Your task to perform on an android device: uninstall "Yahoo Mail" Image 0: 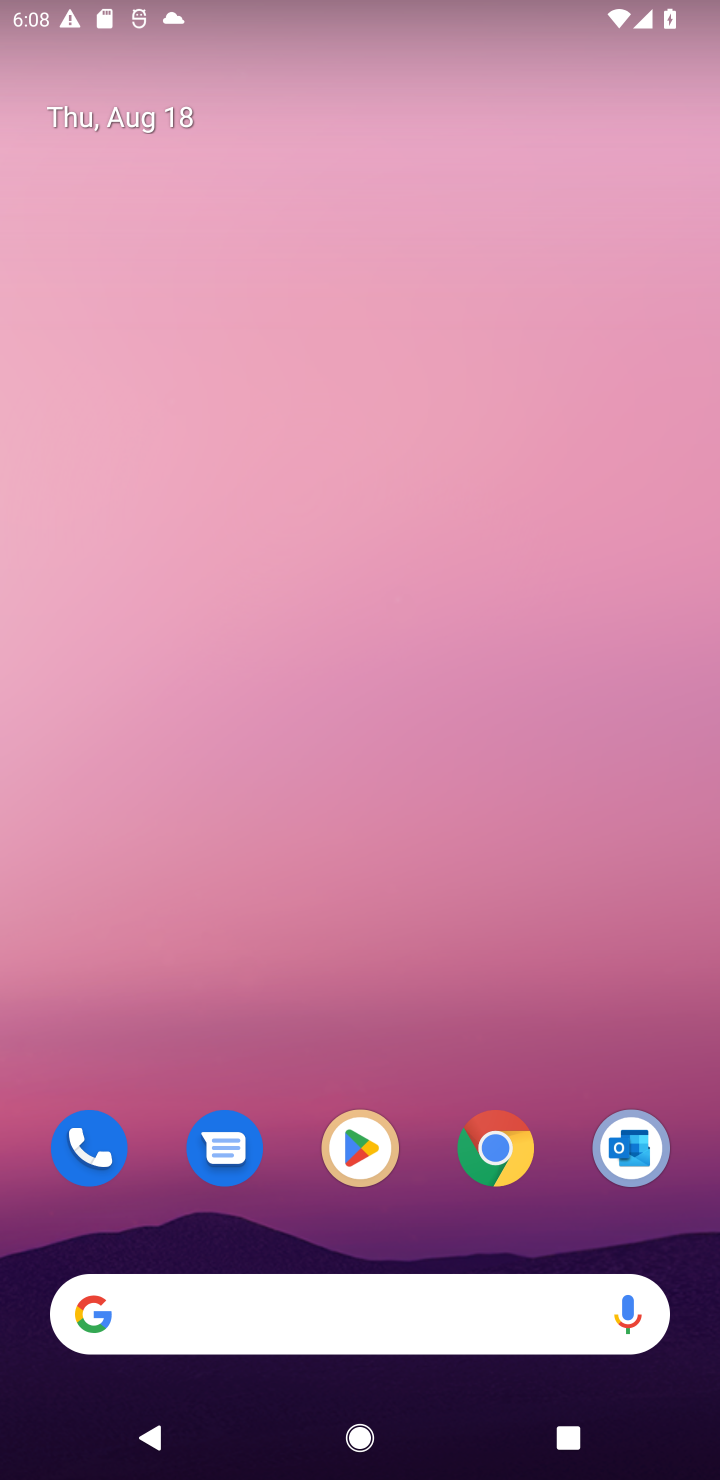
Step 0: drag from (344, 898) to (233, 7)
Your task to perform on an android device: uninstall "Yahoo Mail" Image 1: 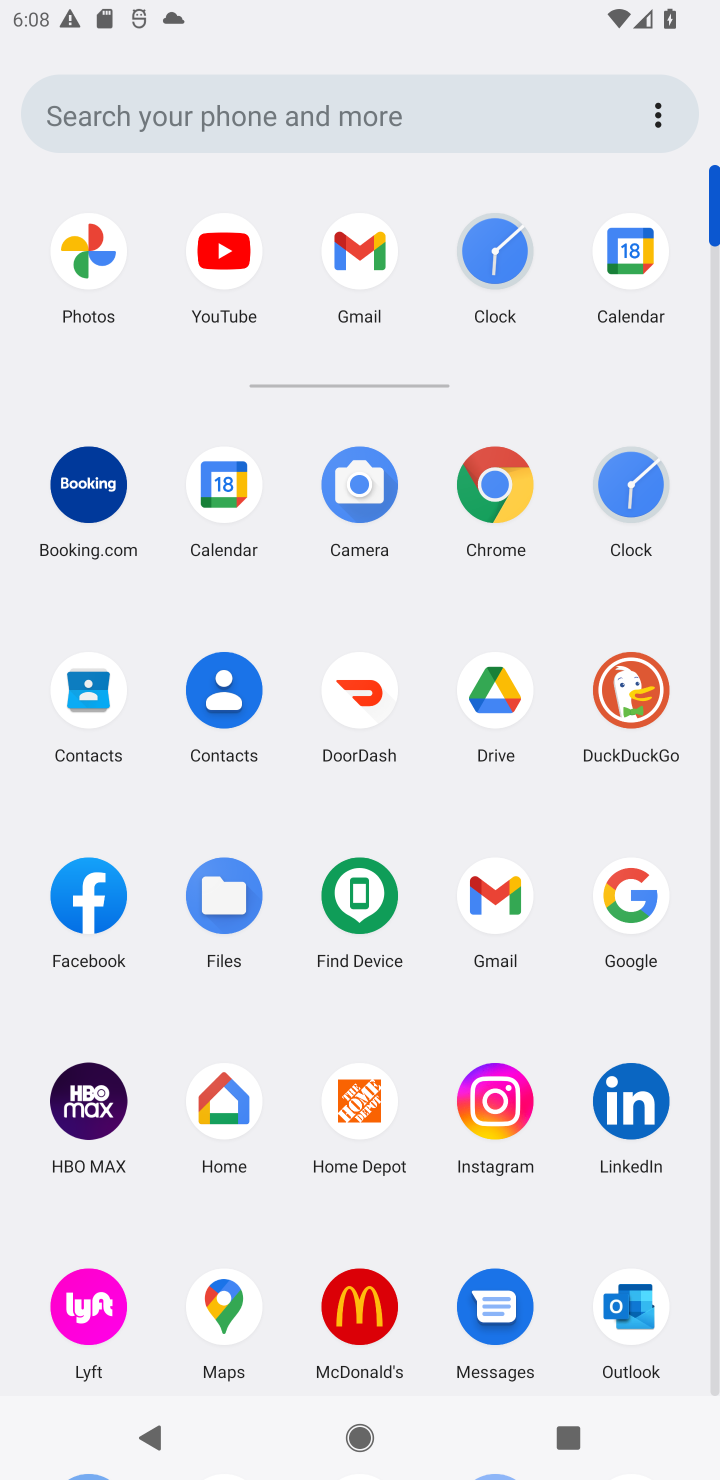
Step 1: click (494, 468)
Your task to perform on an android device: uninstall "Yahoo Mail" Image 2: 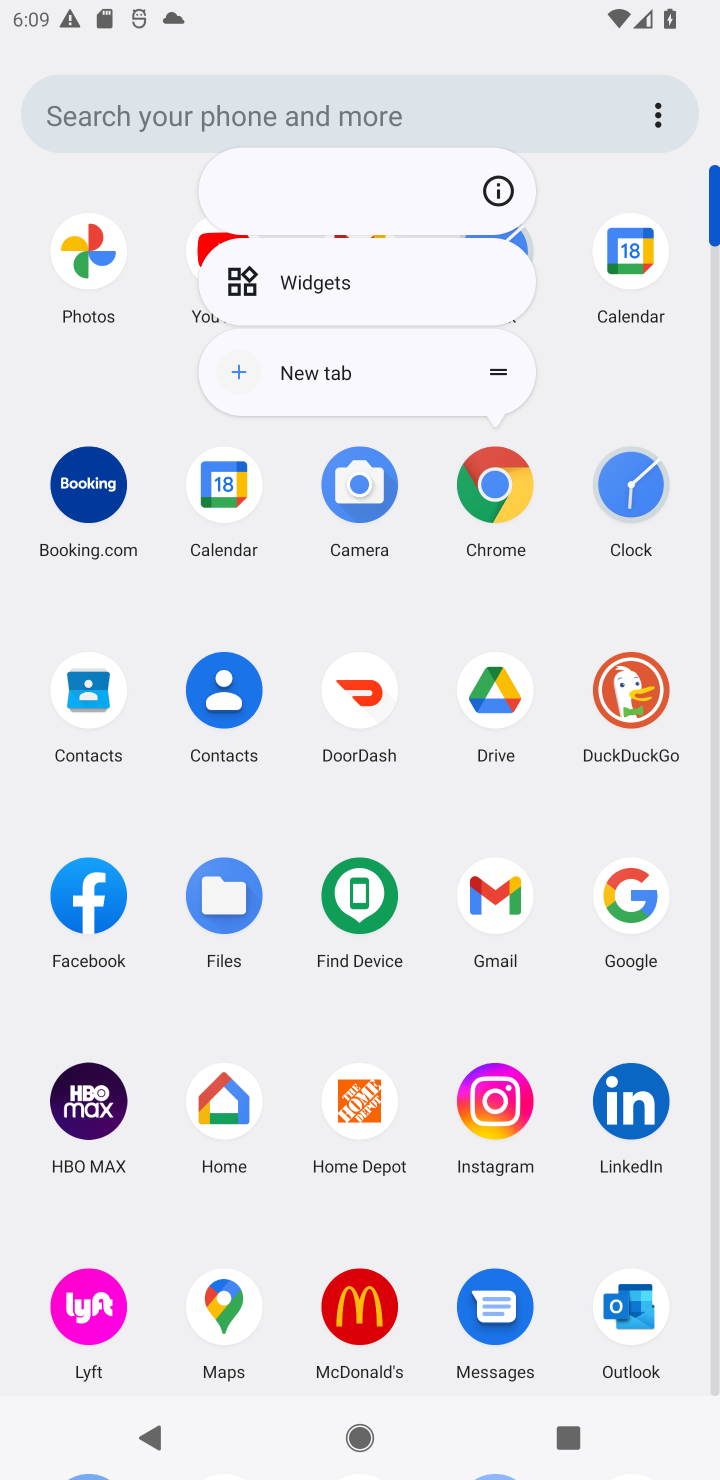
Step 2: click (494, 468)
Your task to perform on an android device: uninstall "Yahoo Mail" Image 3: 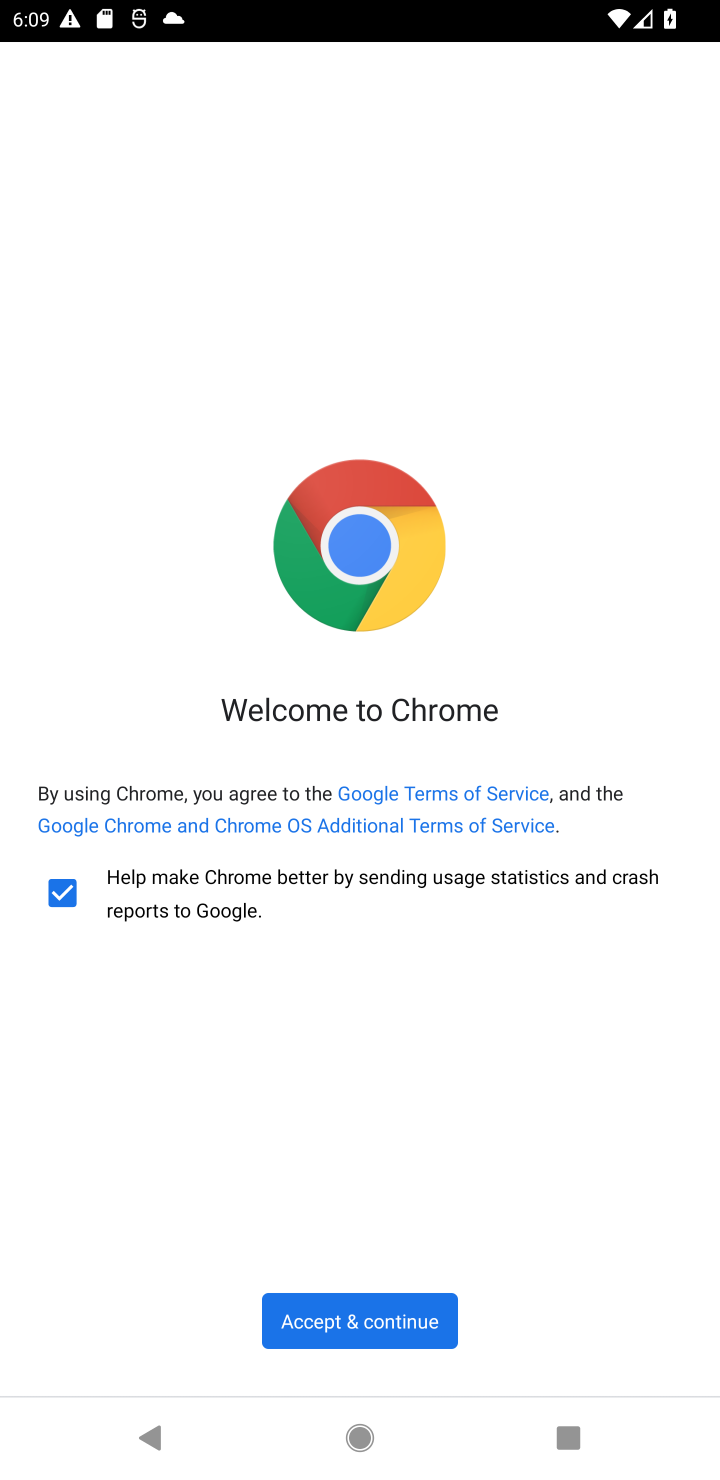
Step 3: click (400, 1318)
Your task to perform on an android device: uninstall "Yahoo Mail" Image 4: 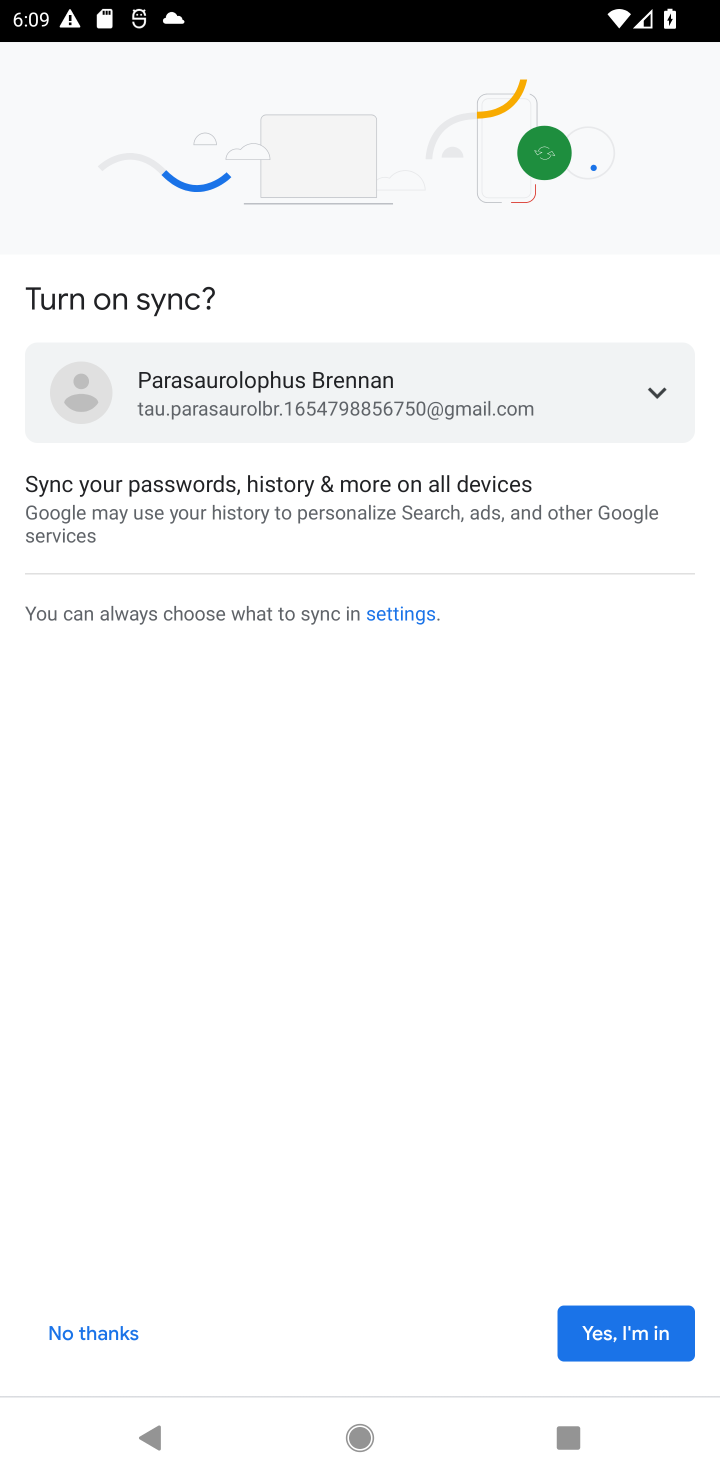
Step 4: click (121, 1330)
Your task to perform on an android device: uninstall "Yahoo Mail" Image 5: 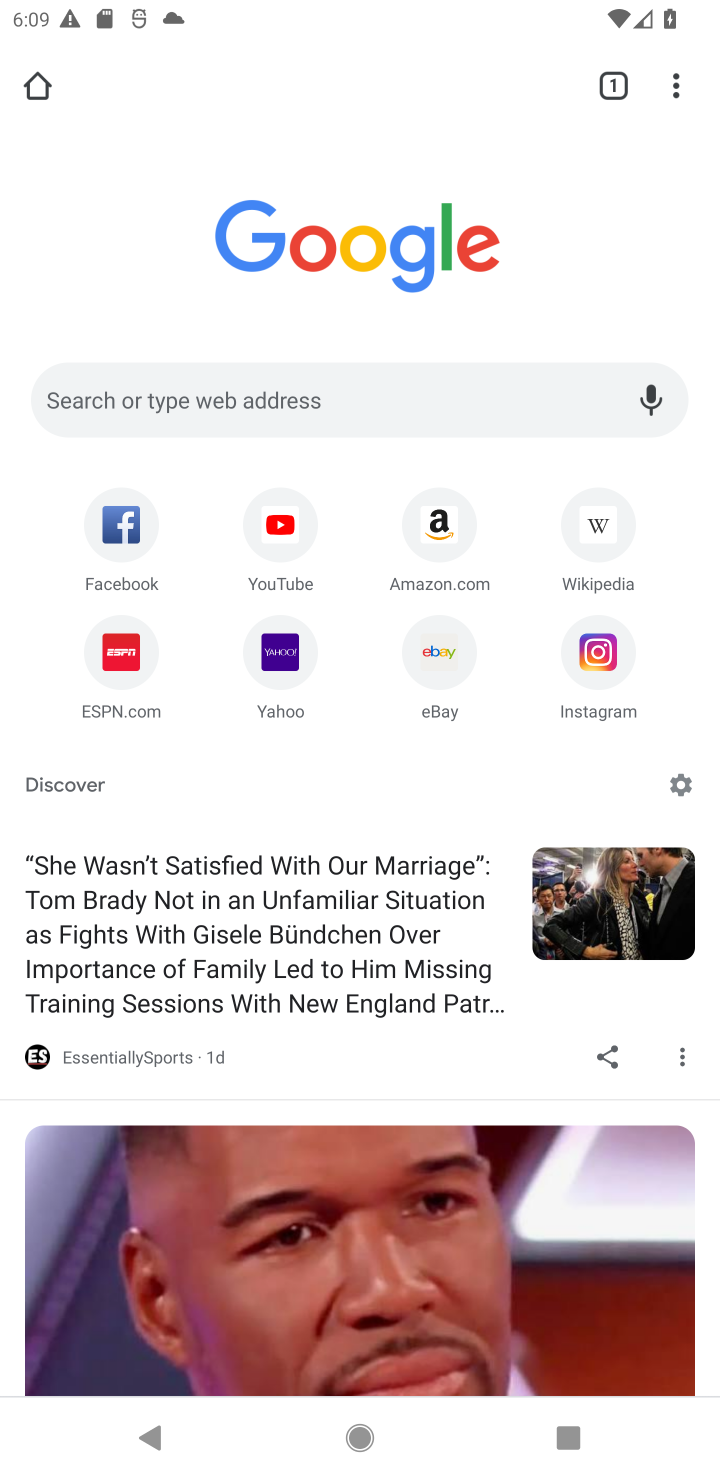
Step 5: press back button
Your task to perform on an android device: uninstall "Yahoo Mail" Image 6: 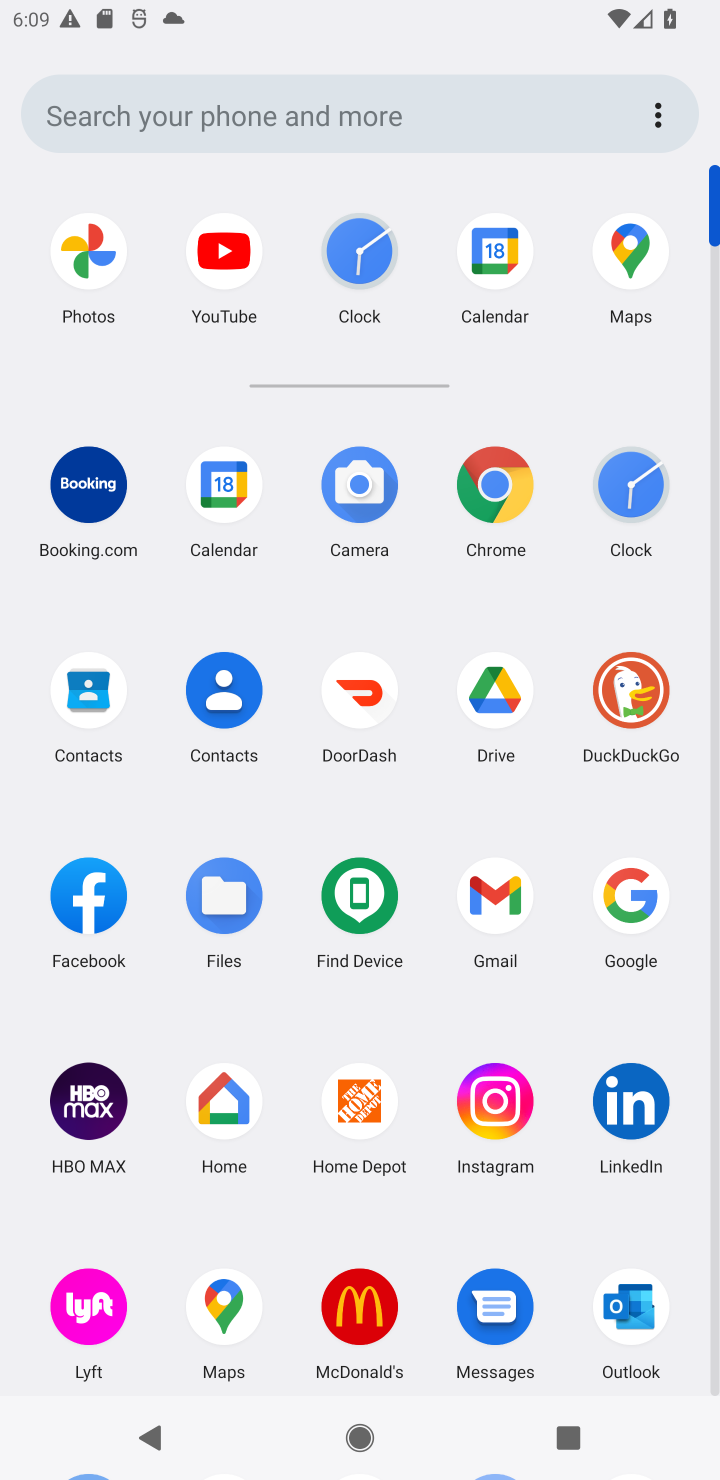
Step 6: drag from (356, 1206) to (262, 590)
Your task to perform on an android device: uninstall "Yahoo Mail" Image 7: 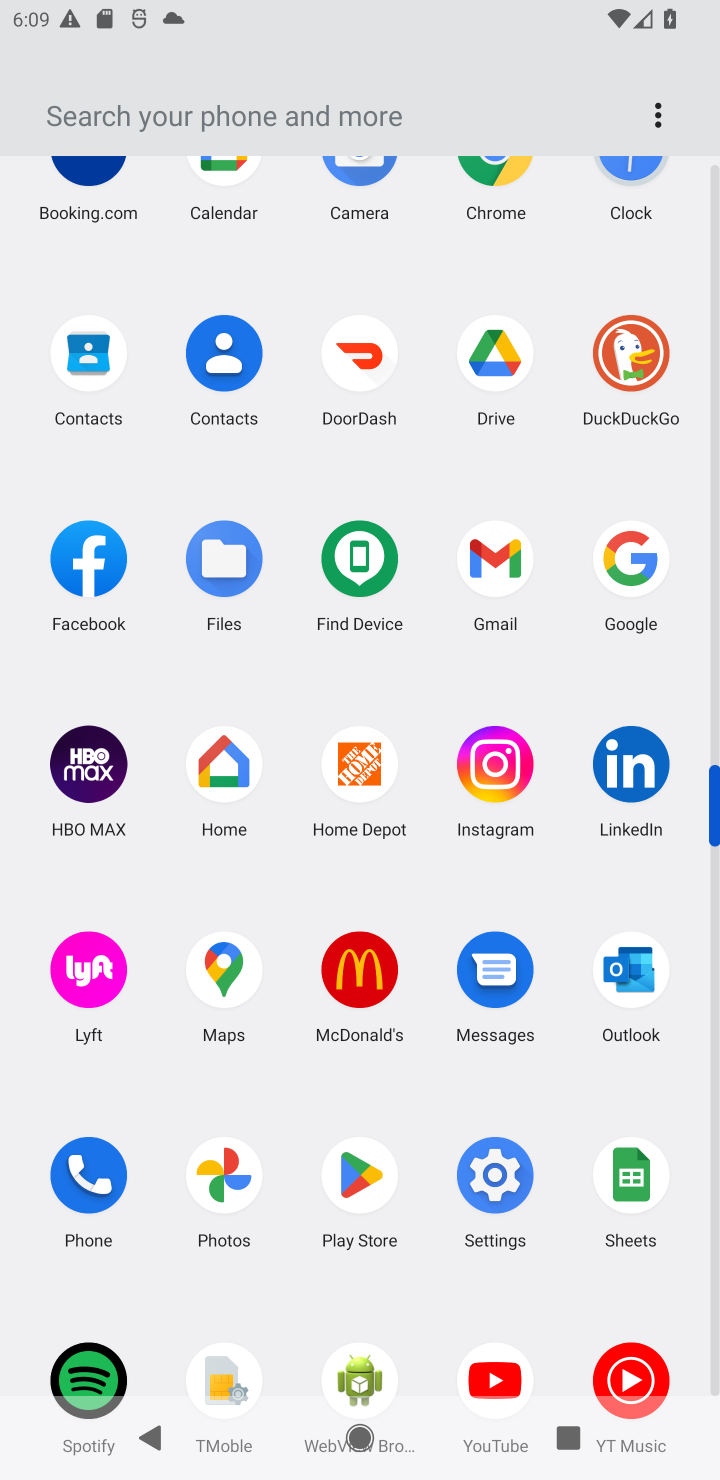
Step 7: click (326, 1169)
Your task to perform on an android device: uninstall "Yahoo Mail" Image 8: 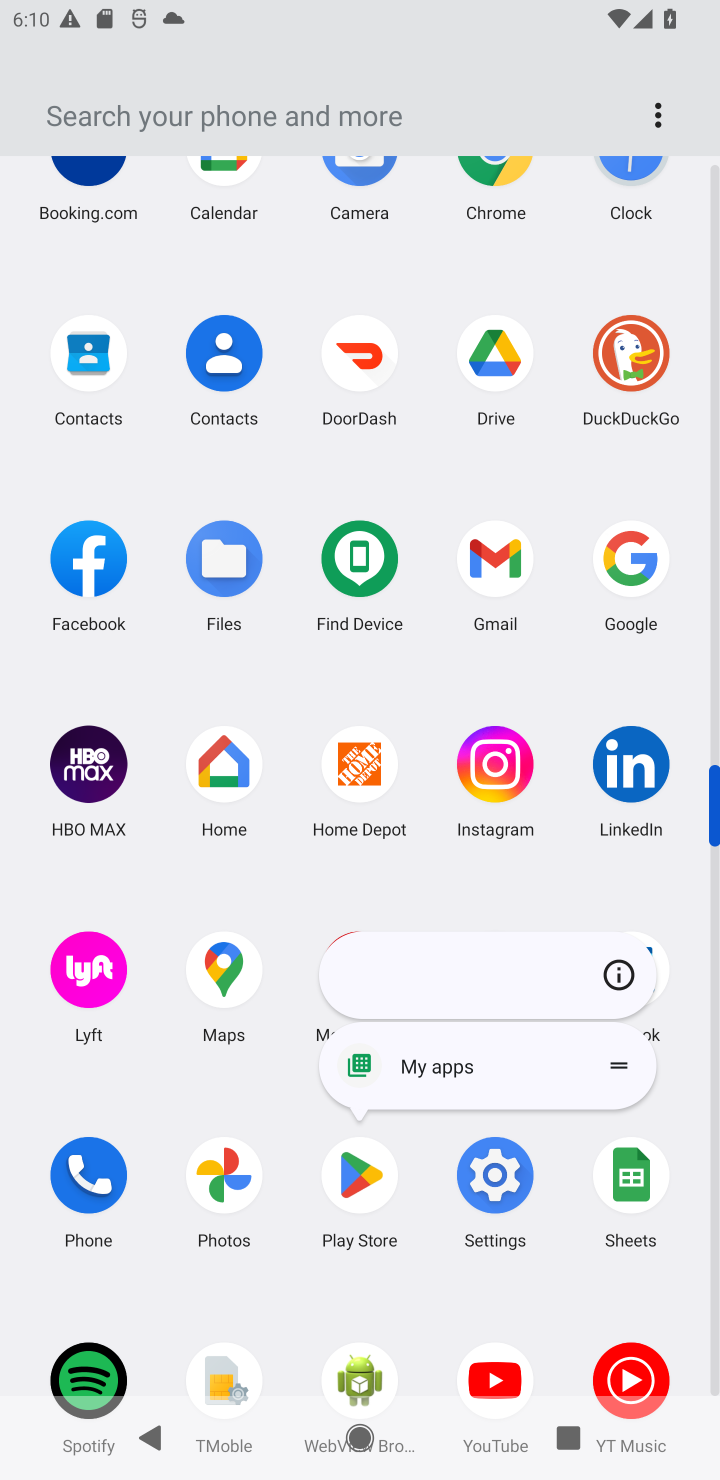
Step 8: click (326, 1171)
Your task to perform on an android device: uninstall "Yahoo Mail" Image 9: 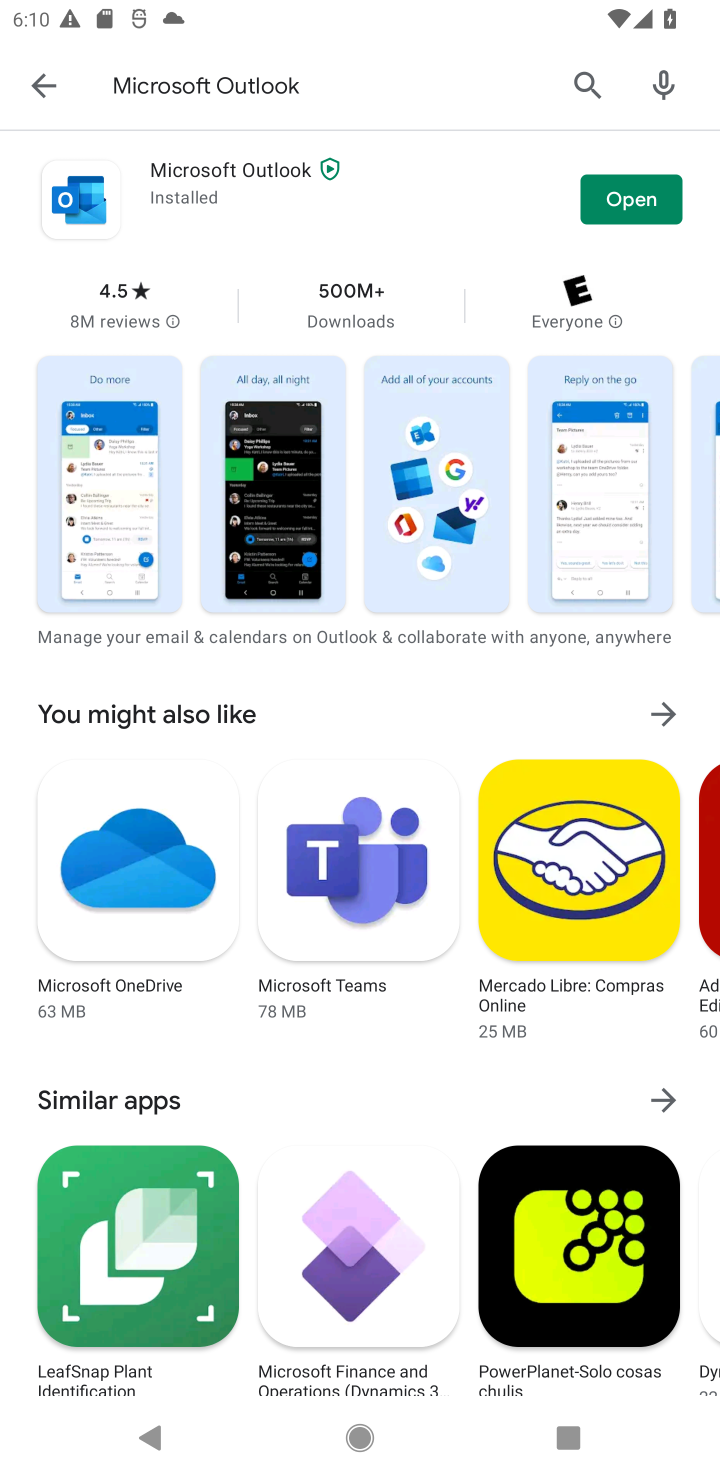
Step 9: press back button
Your task to perform on an android device: uninstall "Yahoo Mail" Image 10: 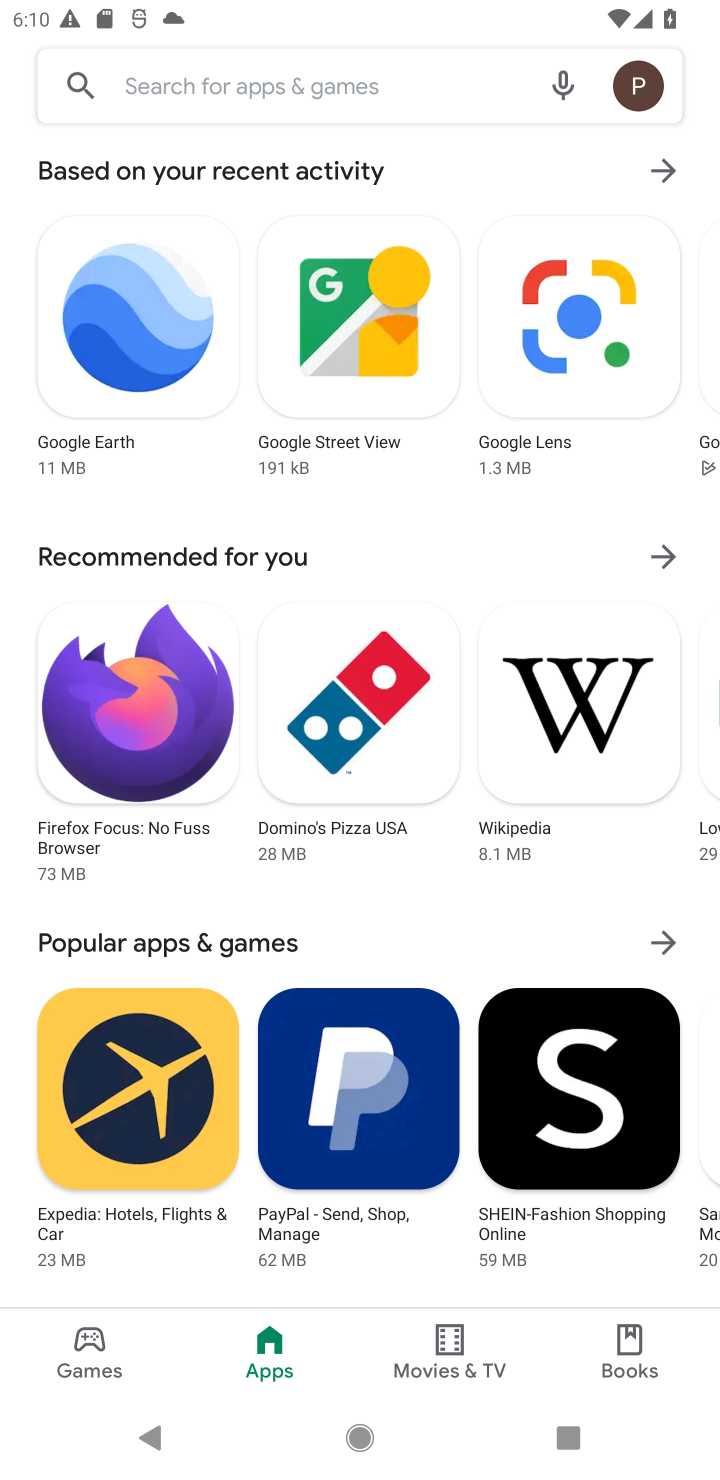
Step 10: click (231, 94)
Your task to perform on an android device: uninstall "Yahoo Mail" Image 11: 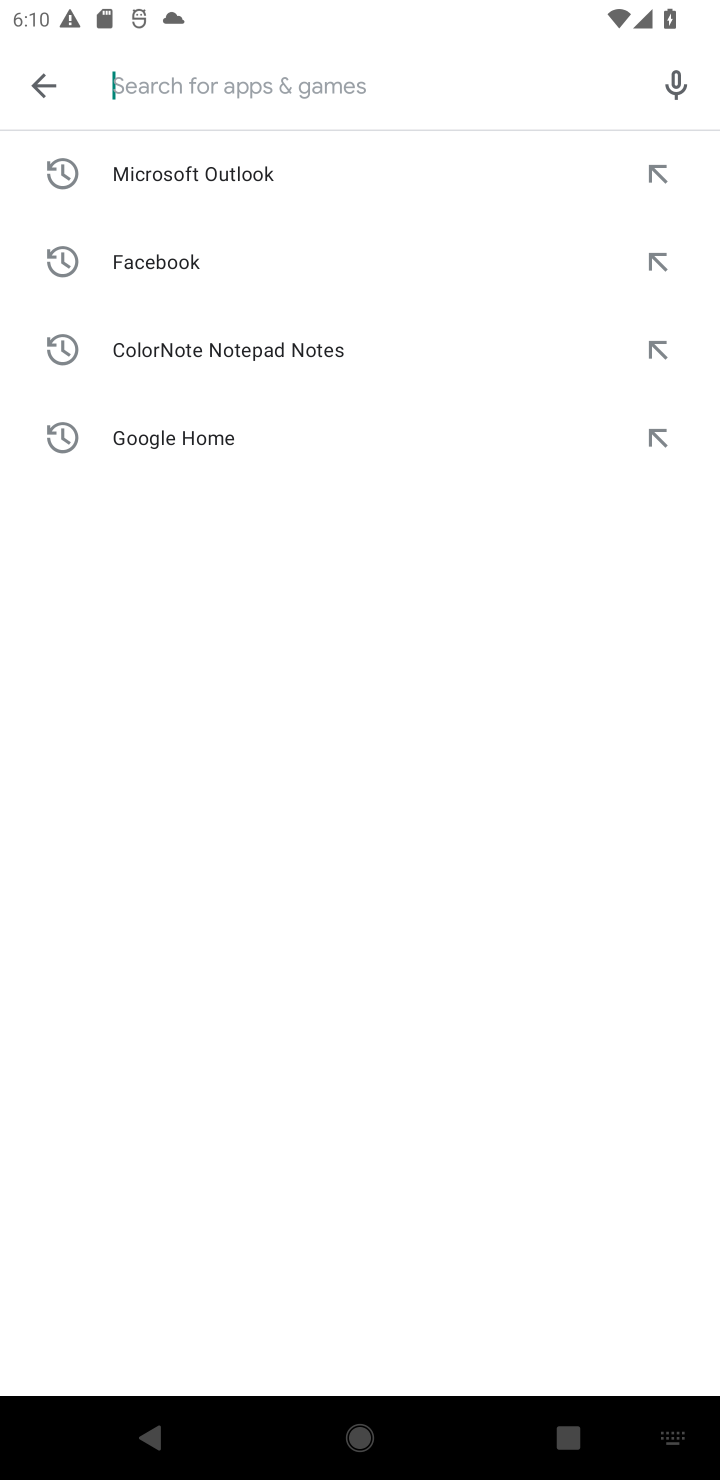
Step 11: type "Yahoo Mail"
Your task to perform on an android device: uninstall "Yahoo Mail" Image 12: 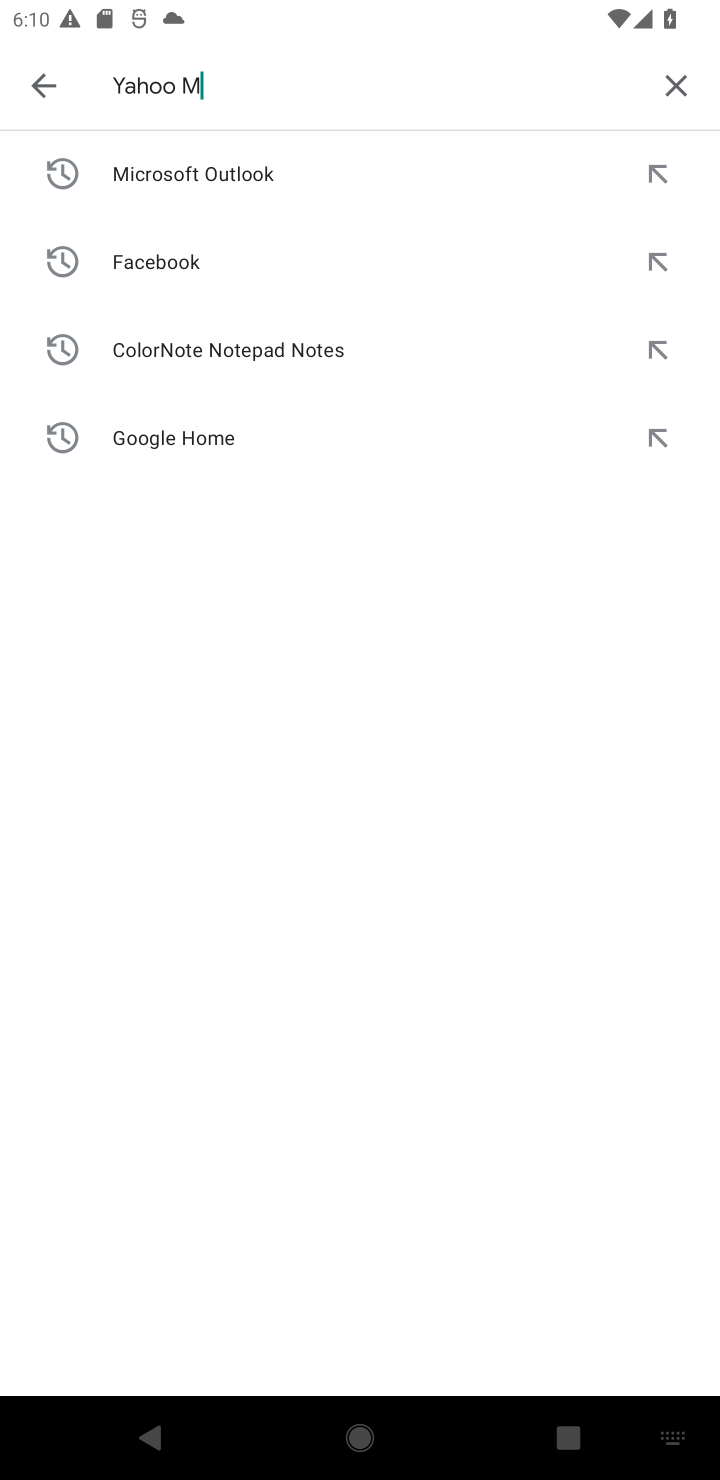
Step 12: press enter
Your task to perform on an android device: uninstall "Yahoo Mail" Image 13: 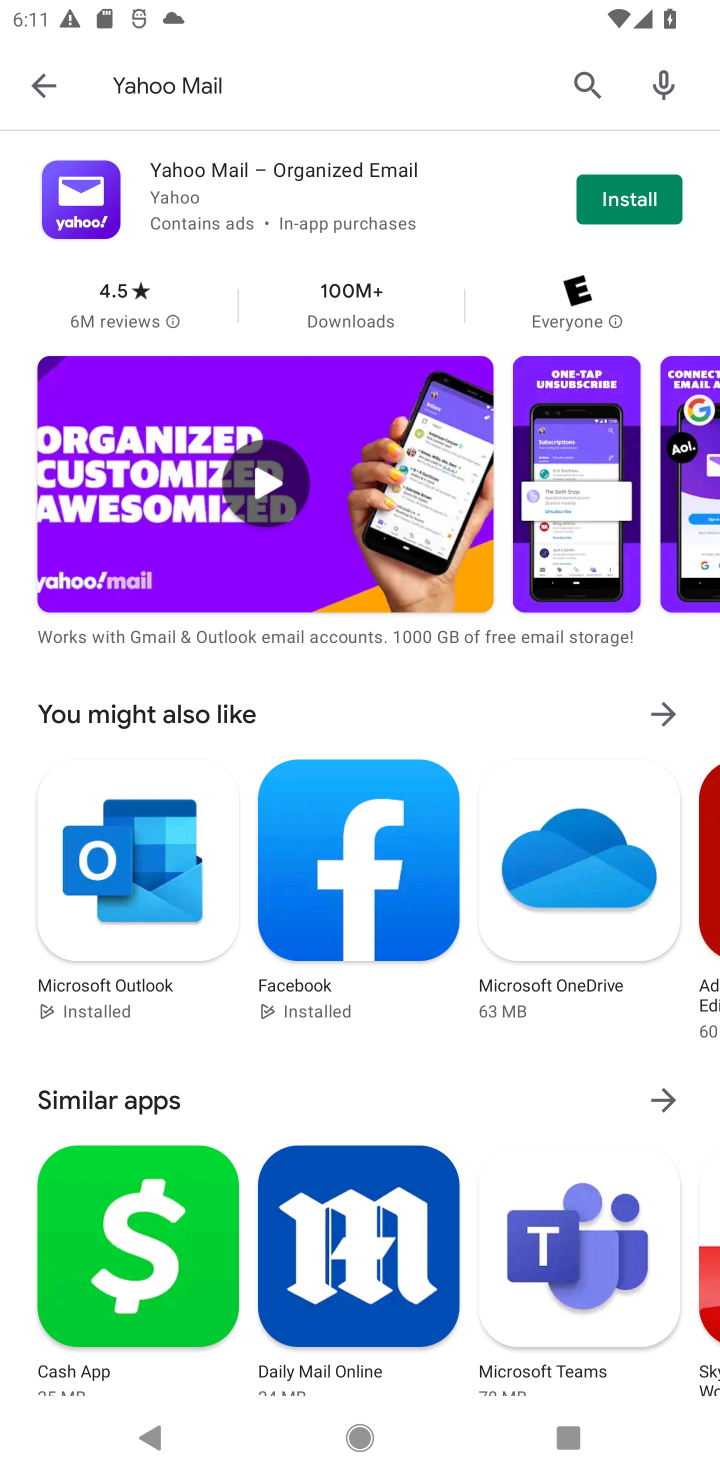
Step 13: task complete